Your task to perform on an android device: Open Google Maps and go to "Timeline" Image 0: 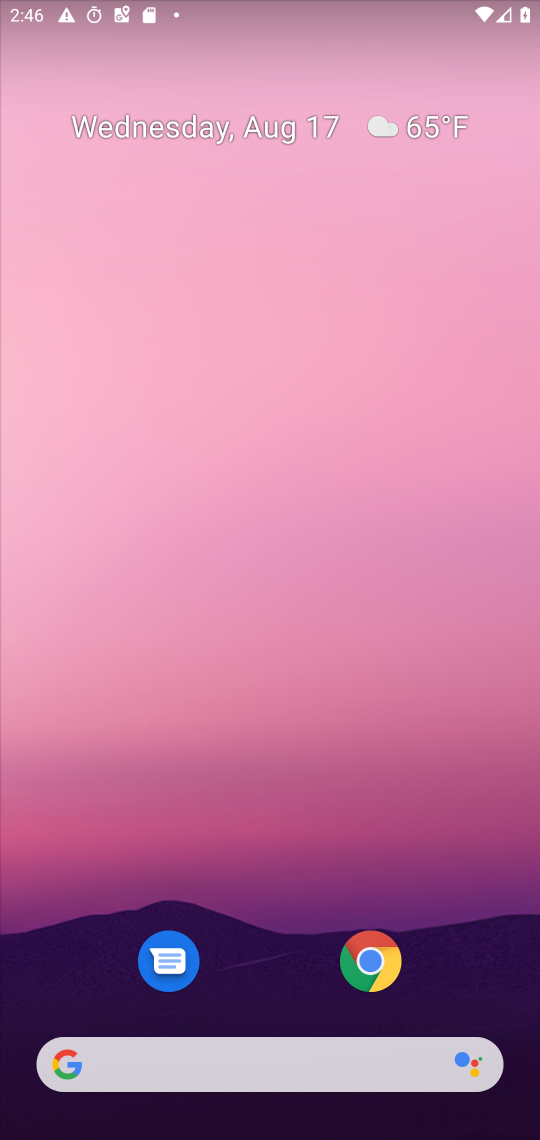
Step 0: drag from (305, 964) to (301, 102)
Your task to perform on an android device: Open Google Maps and go to "Timeline" Image 1: 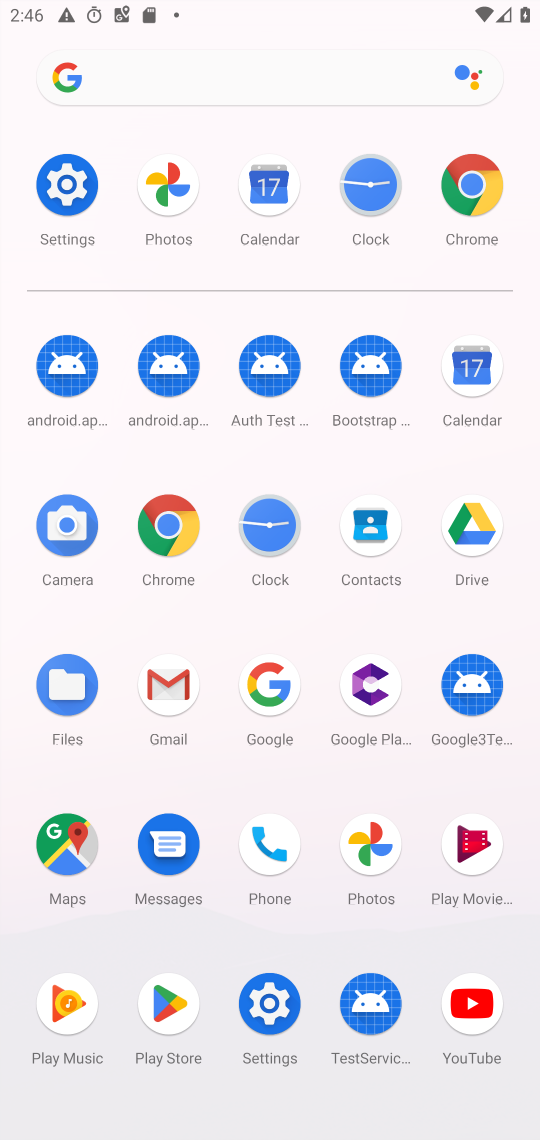
Step 1: click (75, 826)
Your task to perform on an android device: Open Google Maps and go to "Timeline" Image 2: 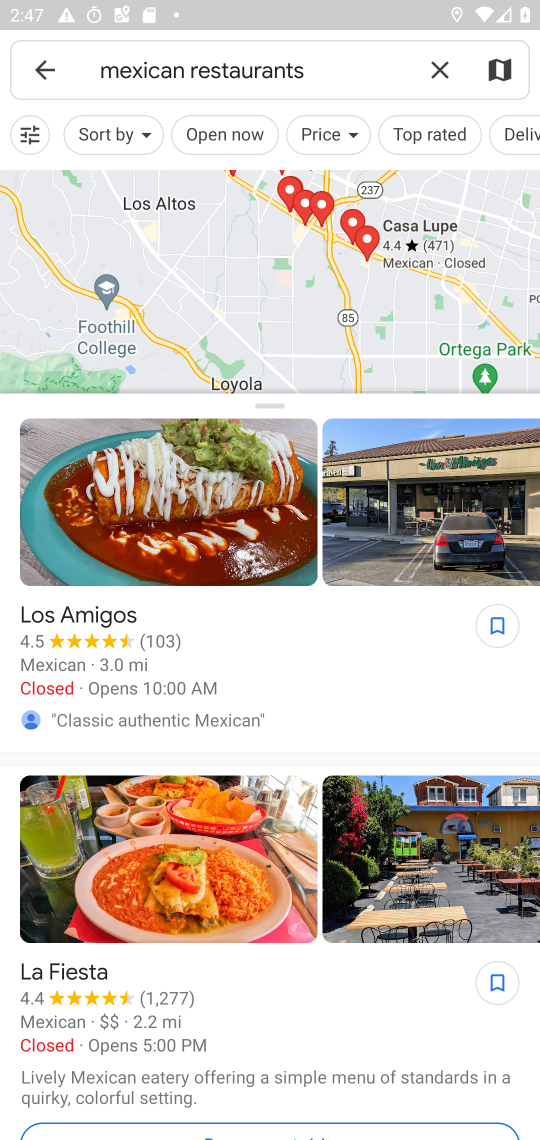
Step 2: click (33, 74)
Your task to perform on an android device: Open Google Maps and go to "Timeline" Image 3: 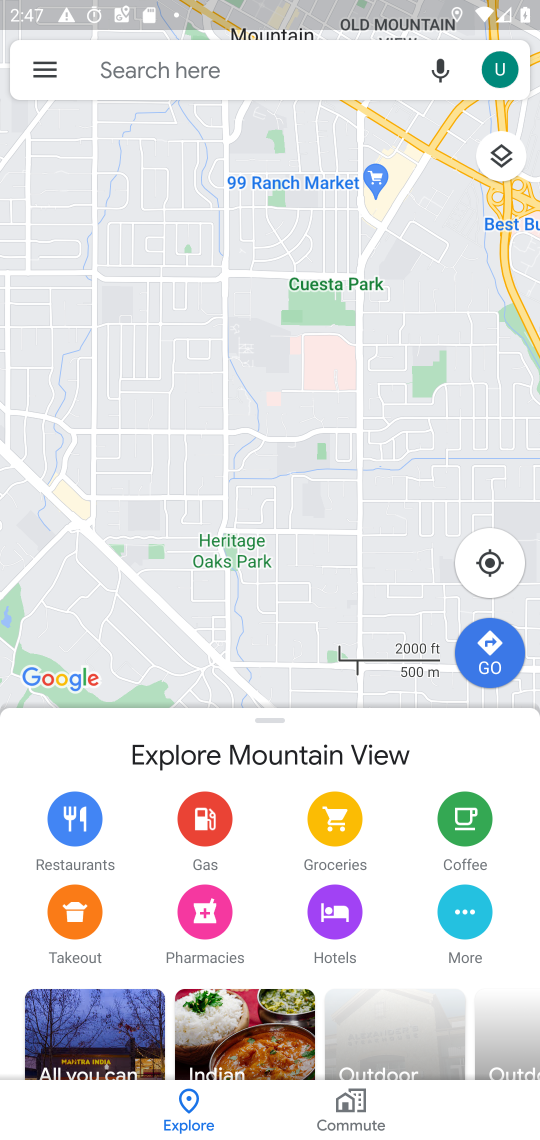
Step 3: click (50, 76)
Your task to perform on an android device: Open Google Maps and go to "Timeline" Image 4: 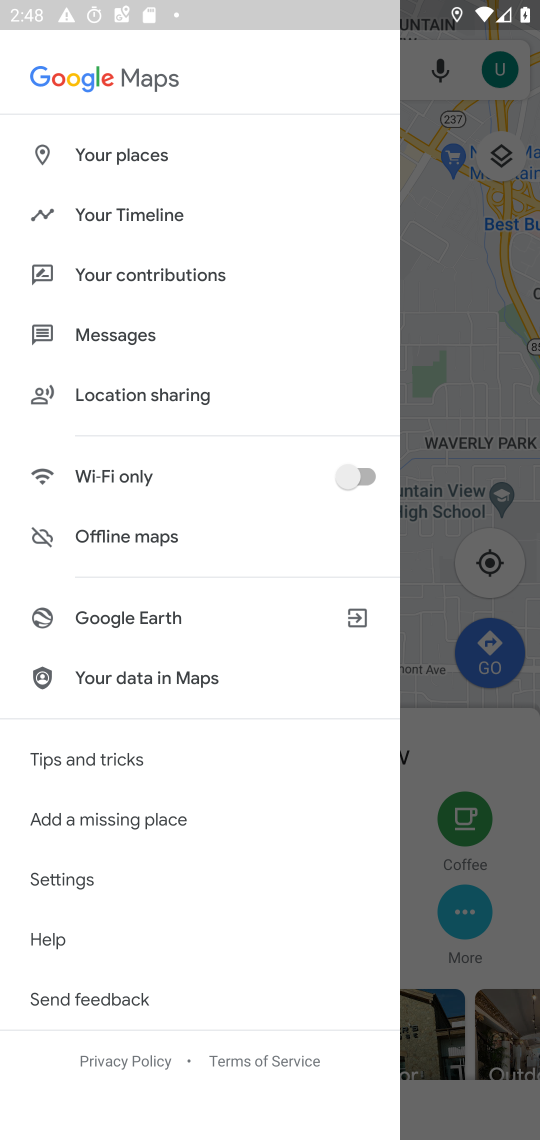
Step 4: click (156, 203)
Your task to perform on an android device: Open Google Maps and go to "Timeline" Image 5: 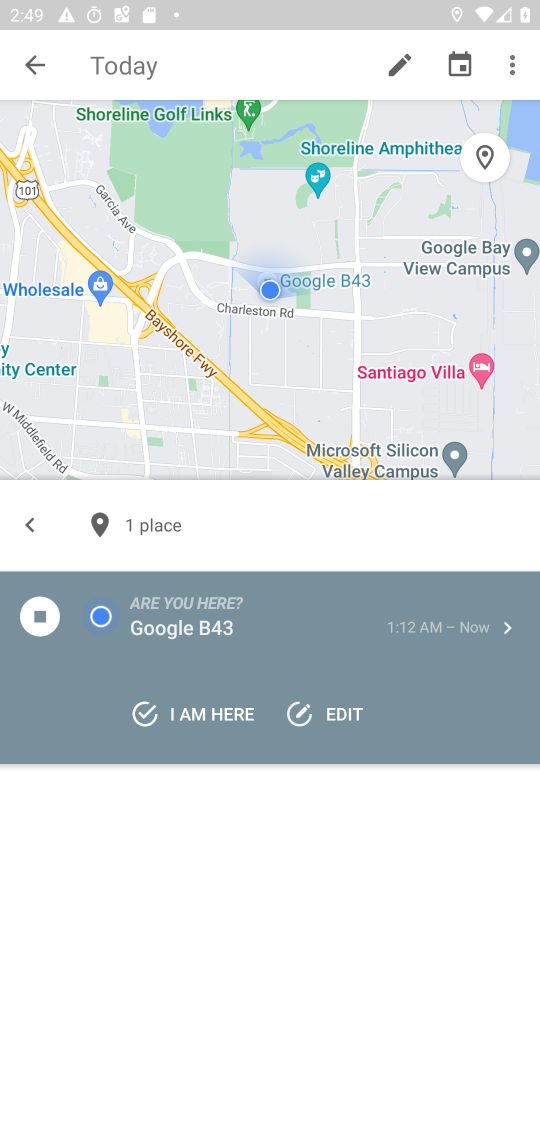
Step 5: task complete